Your task to perform on an android device: read, delete, or share a saved page in the chrome app Image 0: 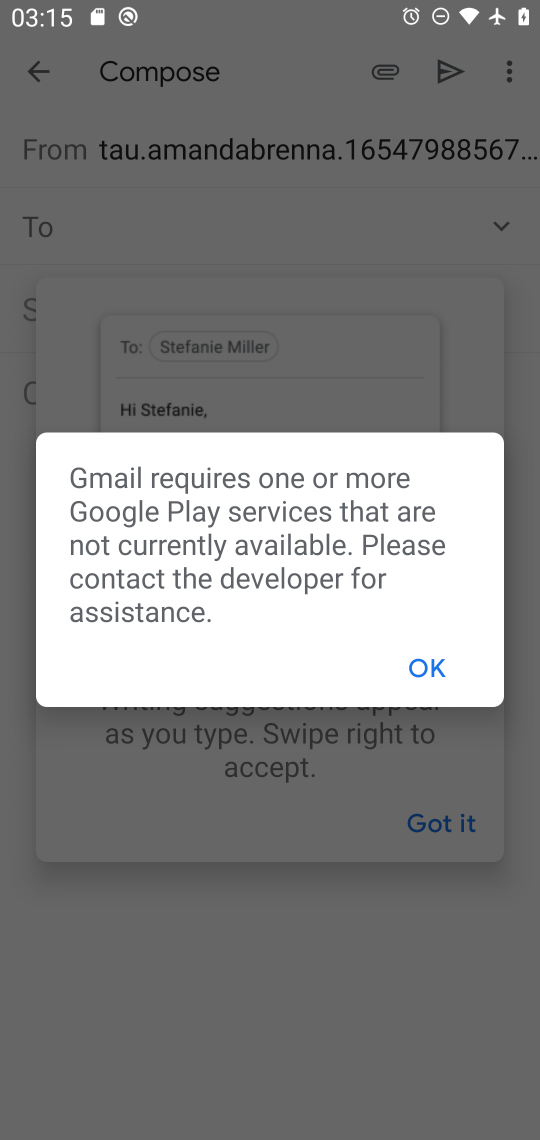
Step 0: press home button
Your task to perform on an android device: read, delete, or share a saved page in the chrome app Image 1: 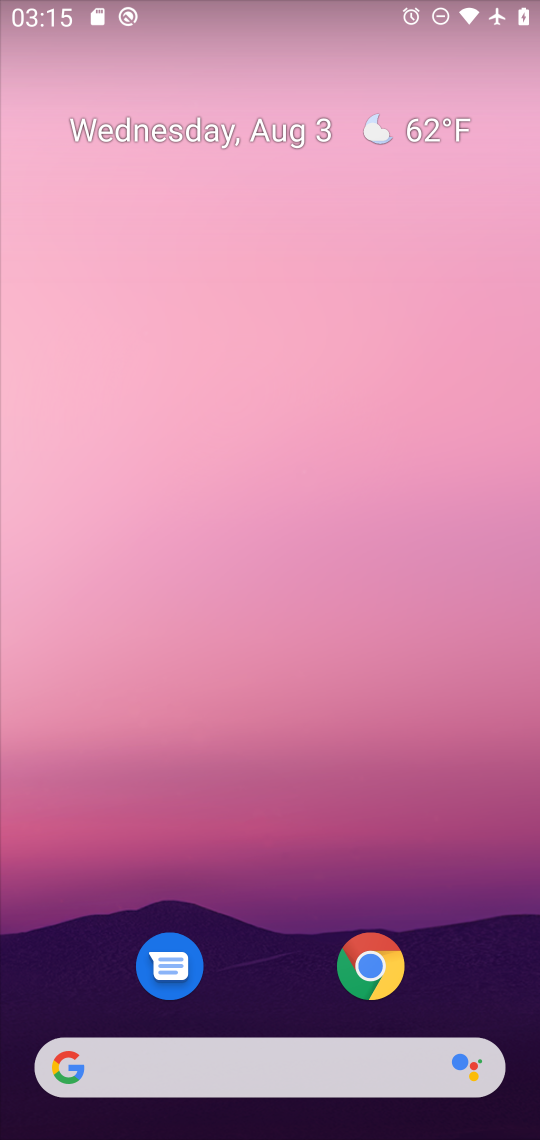
Step 1: click (376, 980)
Your task to perform on an android device: read, delete, or share a saved page in the chrome app Image 2: 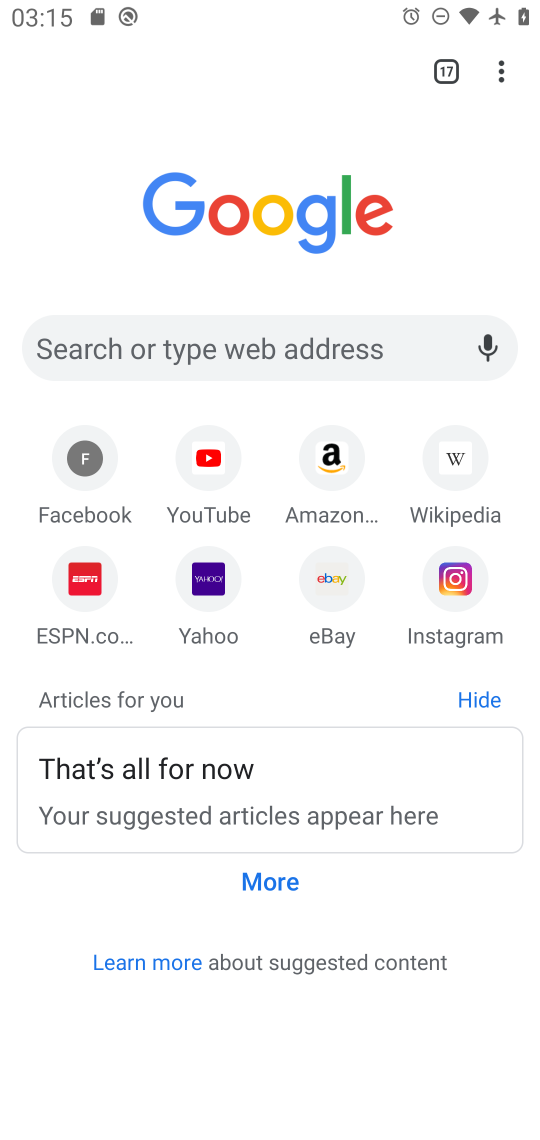
Step 2: click (493, 78)
Your task to perform on an android device: read, delete, or share a saved page in the chrome app Image 3: 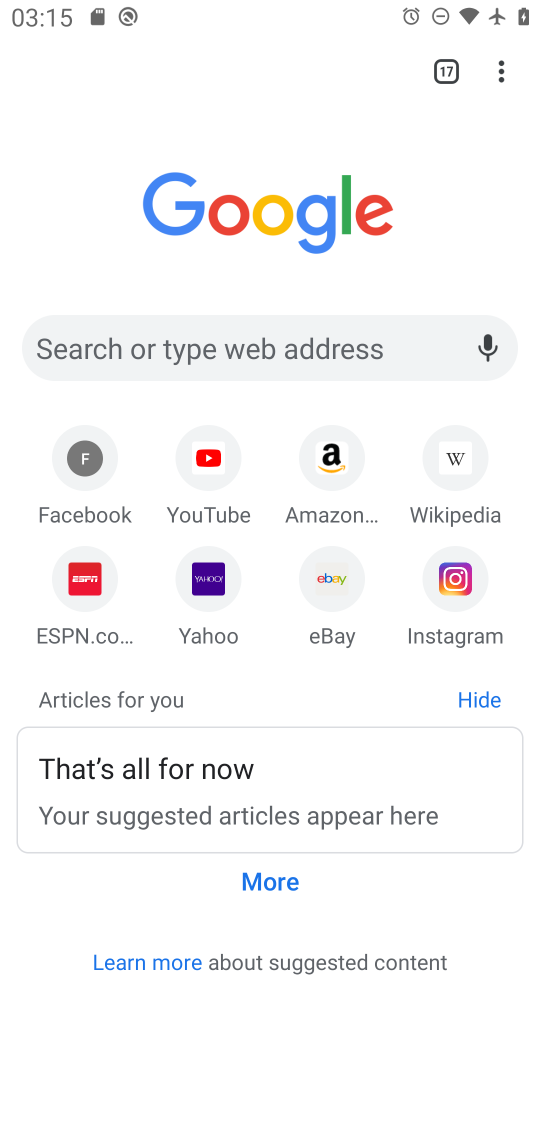
Step 3: click (514, 68)
Your task to perform on an android device: read, delete, or share a saved page in the chrome app Image 4: 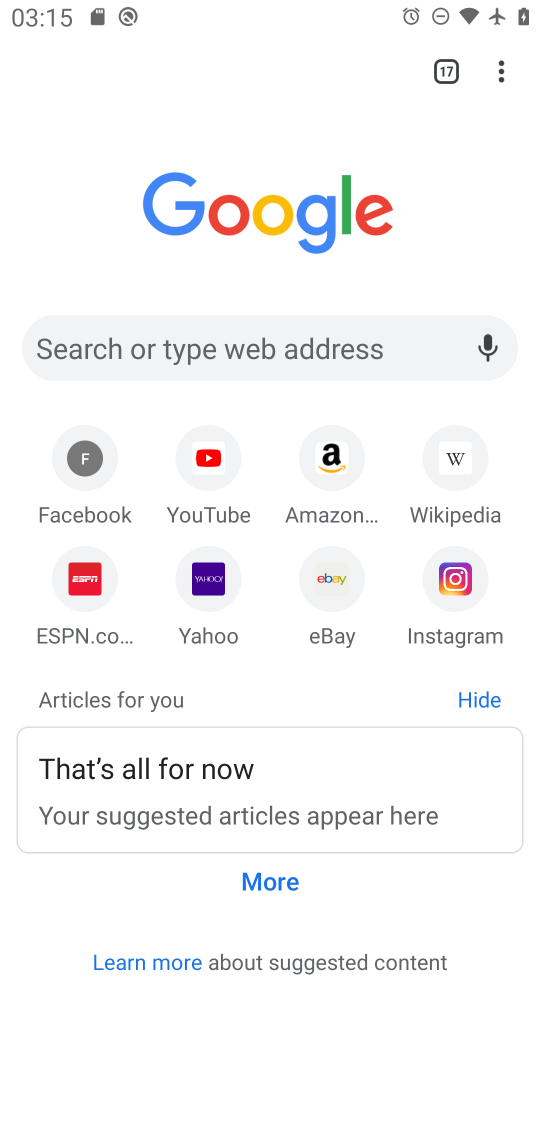
Step 4: click (501, 75)
Your task to perform on an android device: read, delete, or share a saved page in the chrome app Image 5: 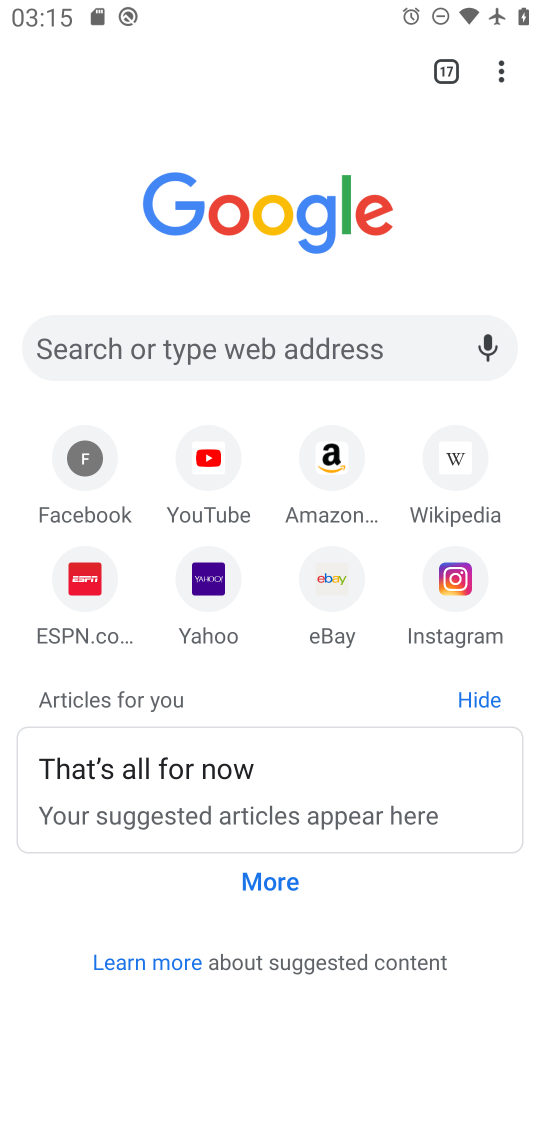
Step 5: click (501, 75)
Your task to perform on an android device: read, delete, or share a saved page in the chrome app Image 6: 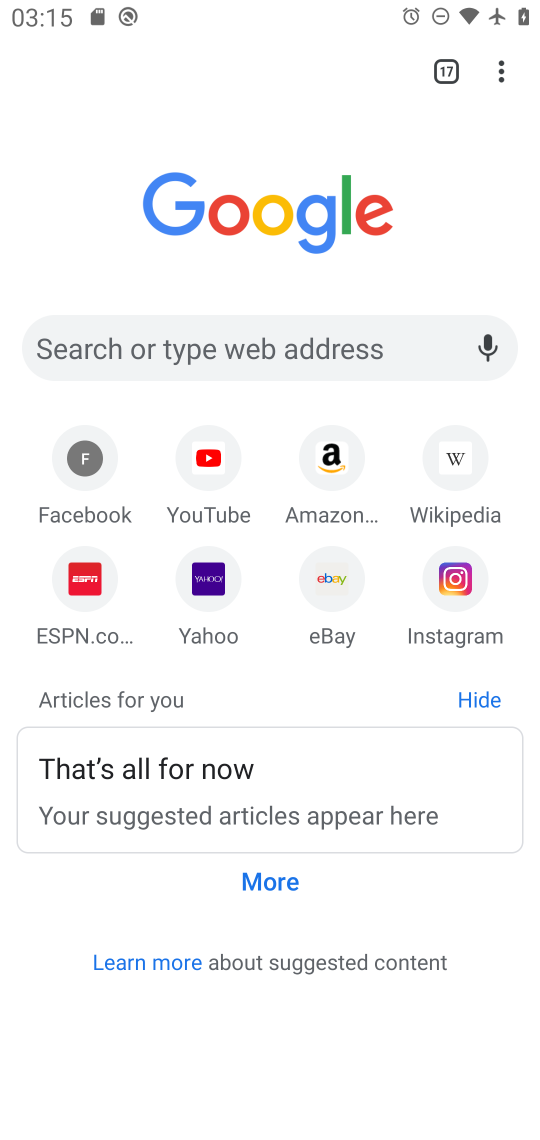
Step 6: drag from (501, 75) to (259, 446)
Your task to perform on an android device: read, delete, or share a saved page in the chrome app Image 7: 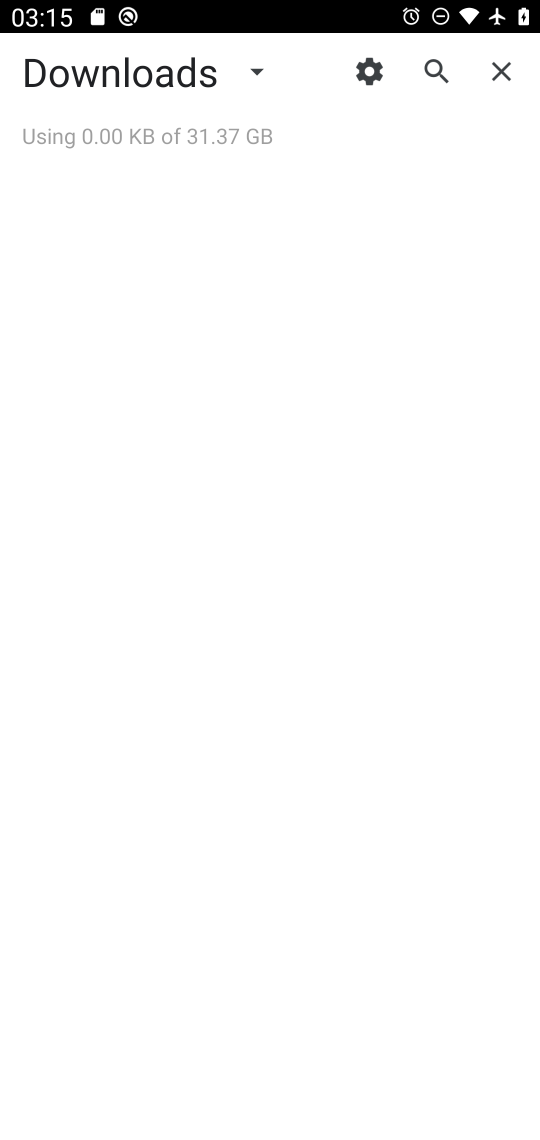
Step 7: click (251, 62)
Your task to perform on an android device: read, delete, or share a saved page in the chrome app Image 8: 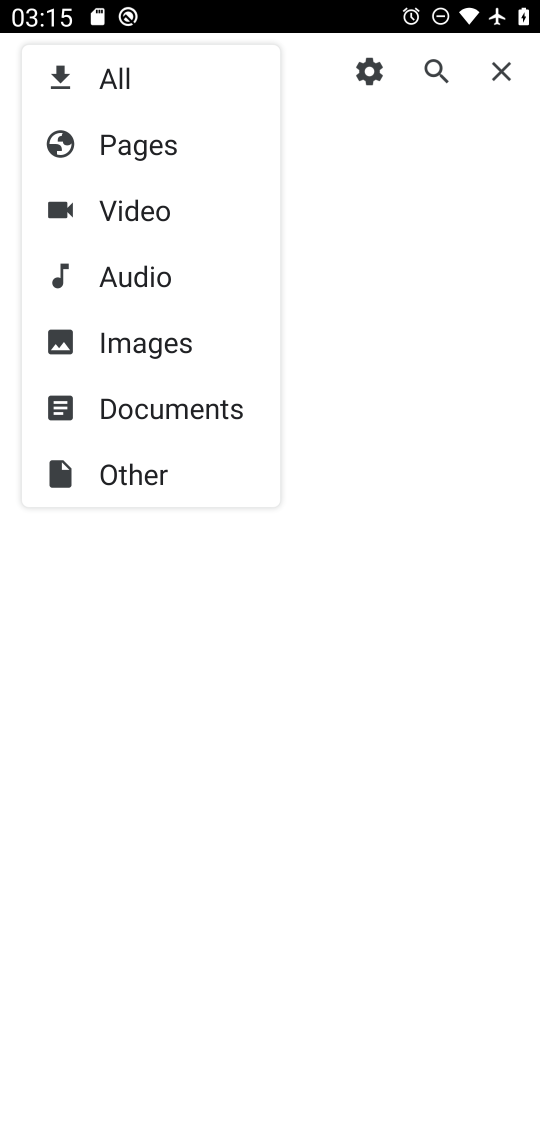
Step 8: click (136, 158)
Your task to perform on an android device: read, delete, or share a saved page in the chrome app Image 9: 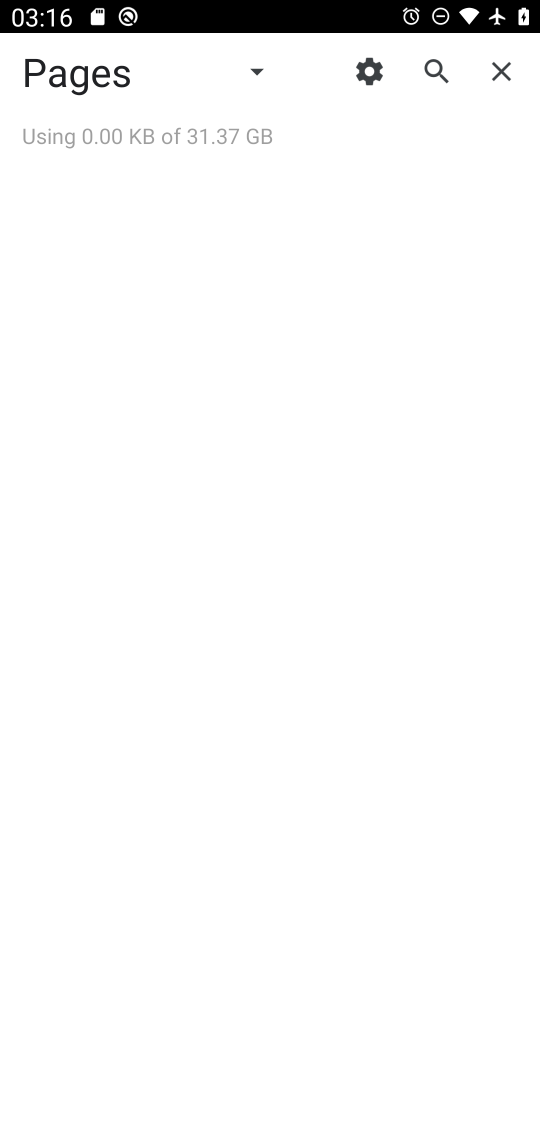
Step 9: task complete